Your task to perform on an android device: Open Yahoo.com Image 0: 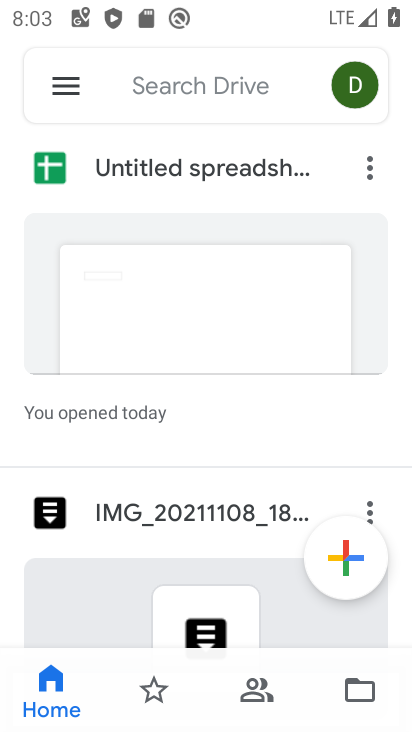
Step 0: press home button
Your task to perform on an android device: Open Yahoo.com Image 1: 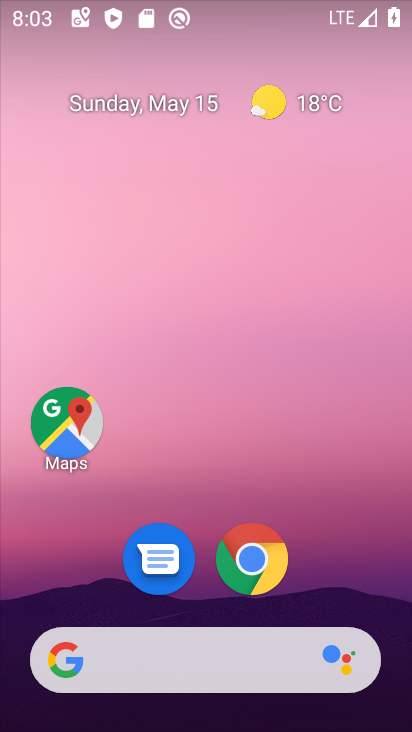
Step 1: click (251, 563)
Your task to perform on an android device: Open Yahoo.com Image 2: 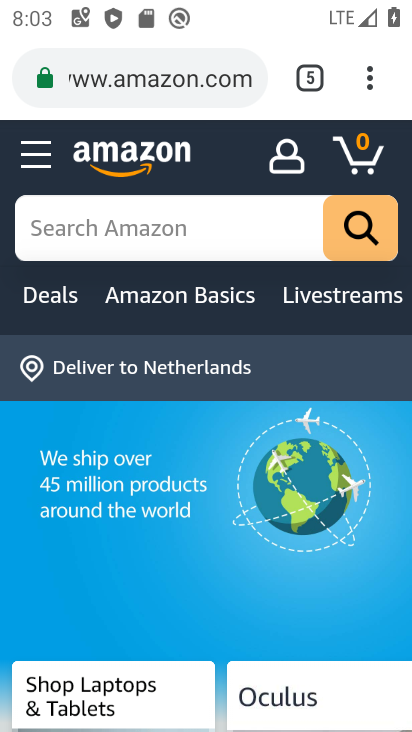
Step 2: click (368, 73)
Your task to perform on an android device: Open Yahoo.com Image 3: 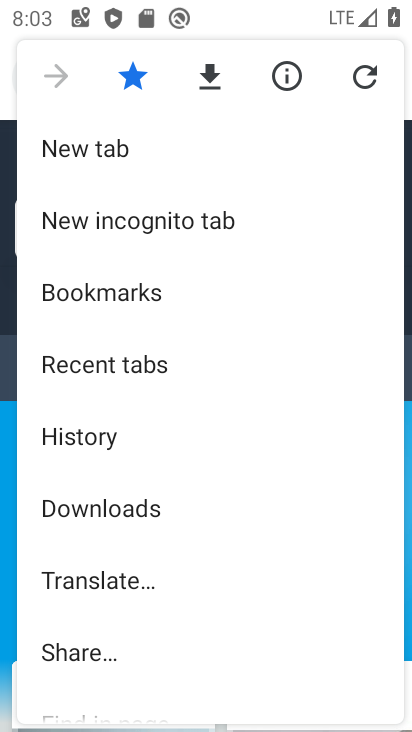
Step 3: click (92, 143)
Your task to perform on an android device: Open Yahoo.com Image 4: 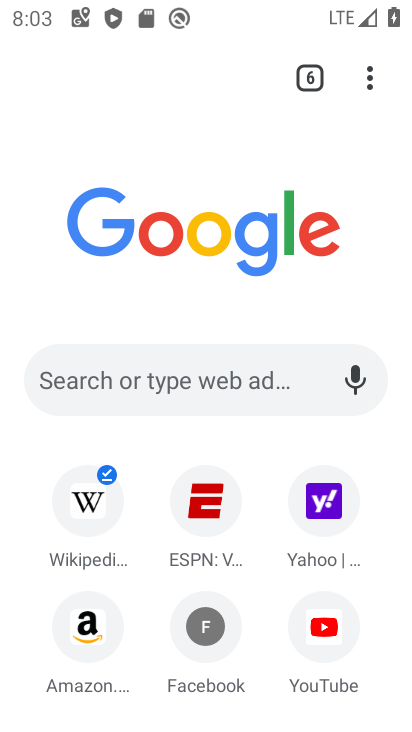
Step 4: click (332, 501)
Your task to perform on an android device: Open Yahoo.com Image 5: 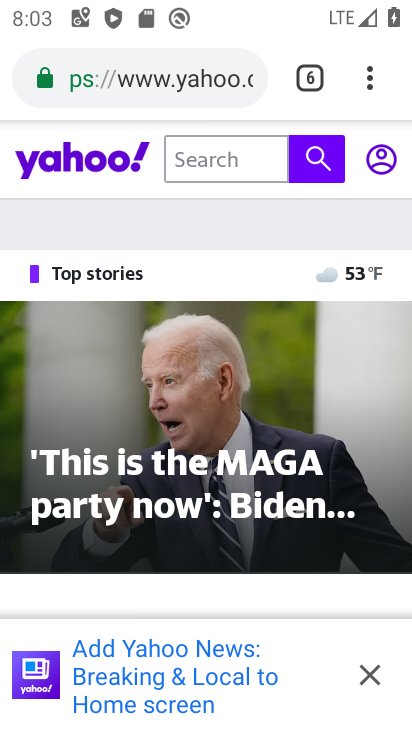
Step 5: task complete